Your task to perform on an android device: toggle javascript in the chrome app Image 0: 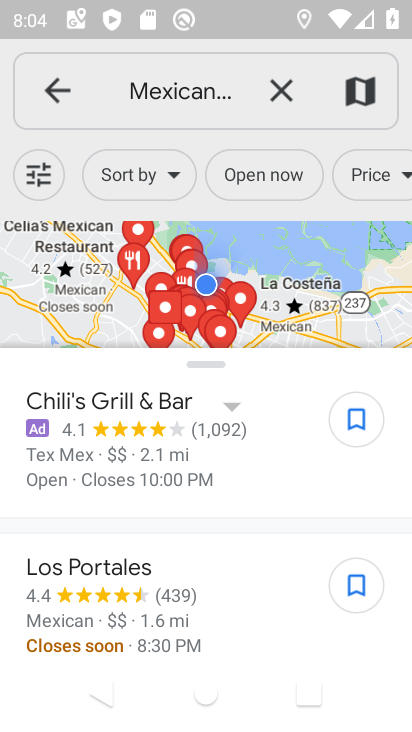
Step 0: press home button
Your task to perform on an android device: toggle javascript in the chrome app Image 1: 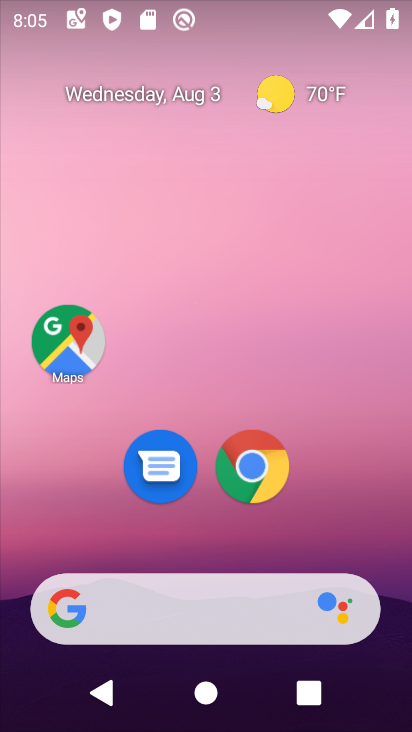
Step 1: drag from (390, 486) to (352, 72)
Your task to perform on an android device: toggle javascript in the chrome app Image 2: 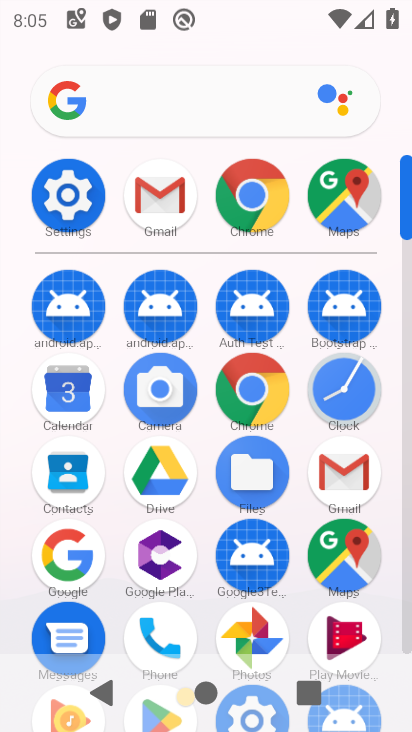
Step 2: click (253, 385)
Your task to perform on an android device: toggle javascript in the chrome app Image 3: 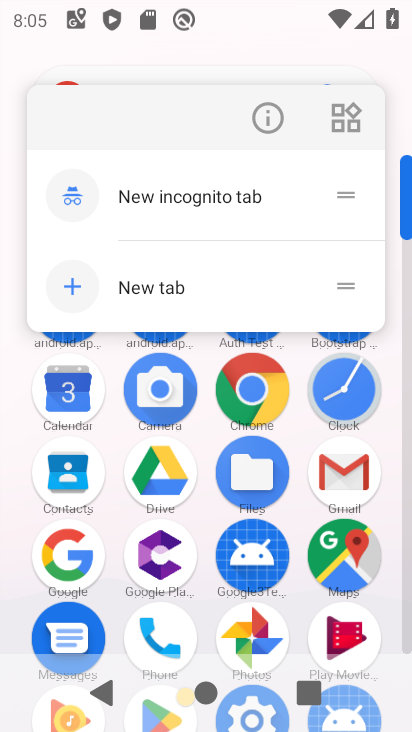
Step 3: click (261, 390)
Your task to perform on an android device: toggle javascript in the chrome app Image 4: 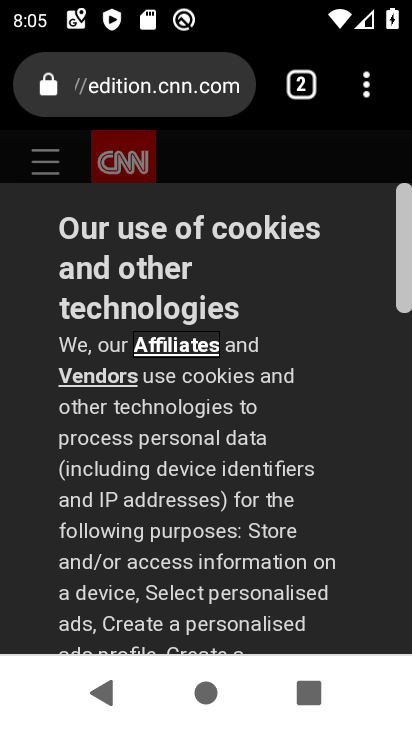
Step 4: drag from (362, 79) to (119, 528)
Your task to perform on an android device: toggle javascript in the chrome app Image 5: 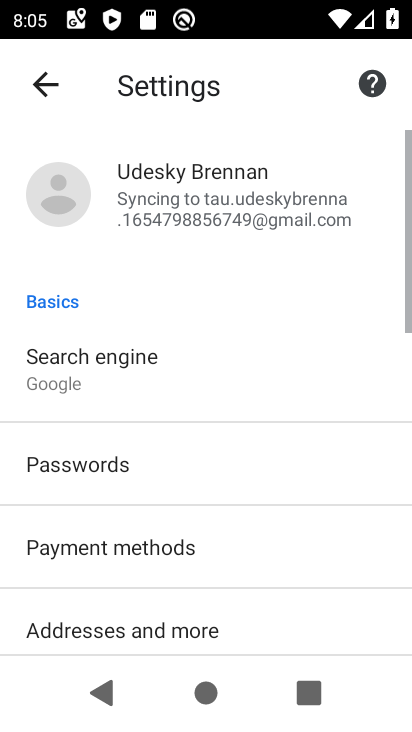
Step 5: drag from (306, 558) to (339, 247)
Your task to perform on an android device: toggle javascript in the chrome app Image 6: 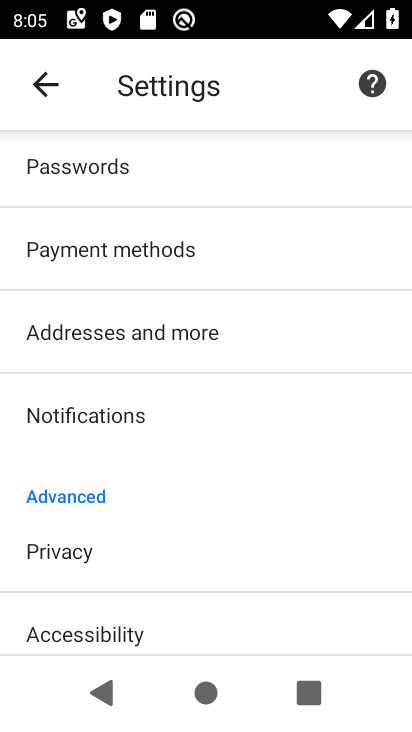
Step 6: drag from (195, 534) to (308, 176)
Your task to perform on an android device: toggle javascript in the chrome app Image 7: 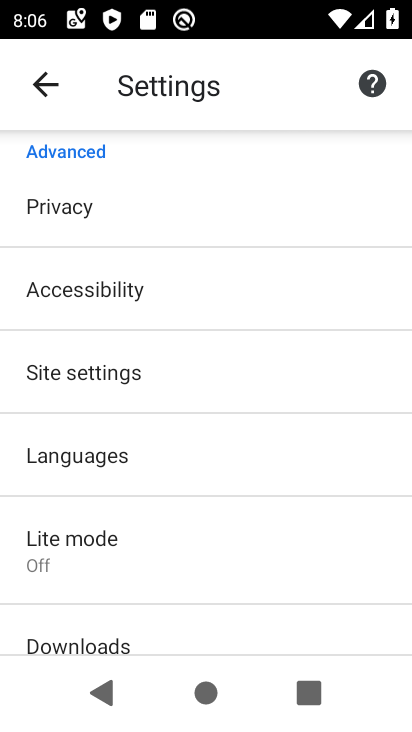
Step 7: drag from (264, 568) to (335, 412)
Your task to perform on an android device: toggle javascript in the chrome app Image 8: 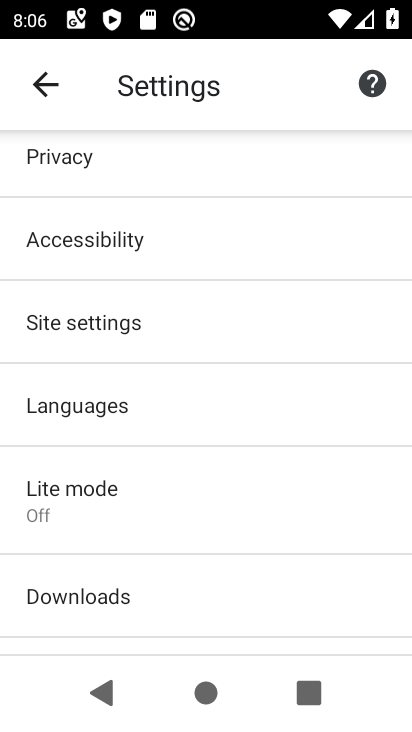
Step 8: click (117, 328)
Your task to perform on an android device: toggle javascript in the chrome app Image 9: 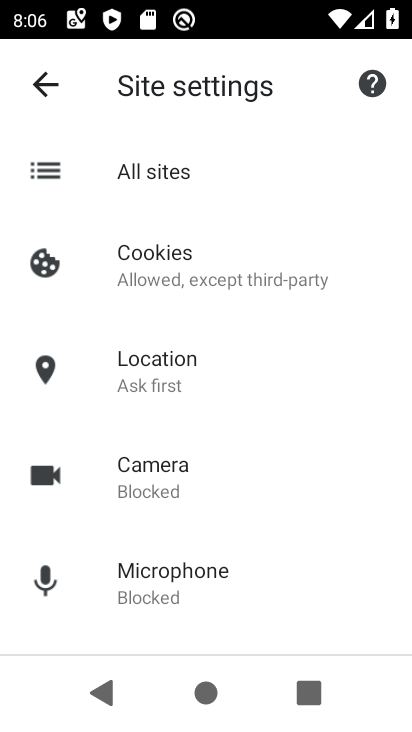
Step 9: drag from (249, 521) to (254, 198)
Your task to perform on an android device: toggle javascript in the chrome app Image 10: 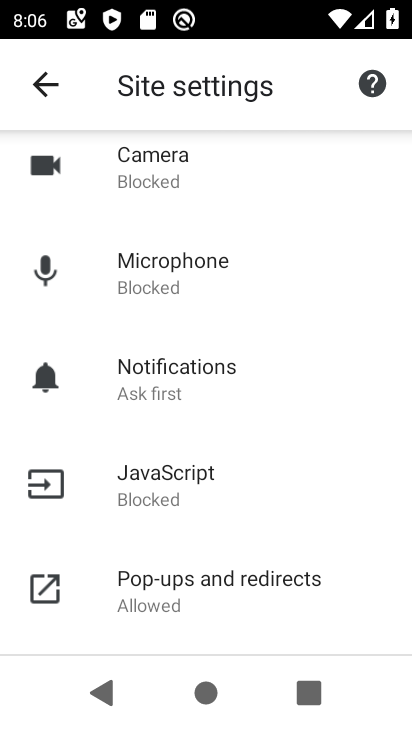
Step 10: click (163, 475)
Your task to perform on an android device: toggle javascript in the chrome app Image 11: 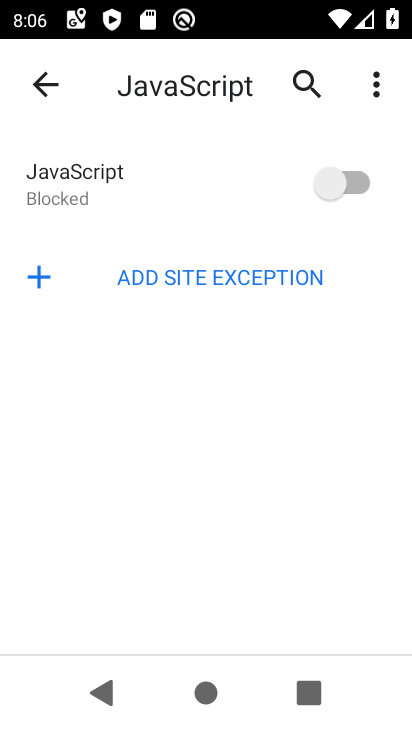
Step 11: click (318, 174)
Your task to perform on an android device: toggle javascript in the chrome app Image 12: 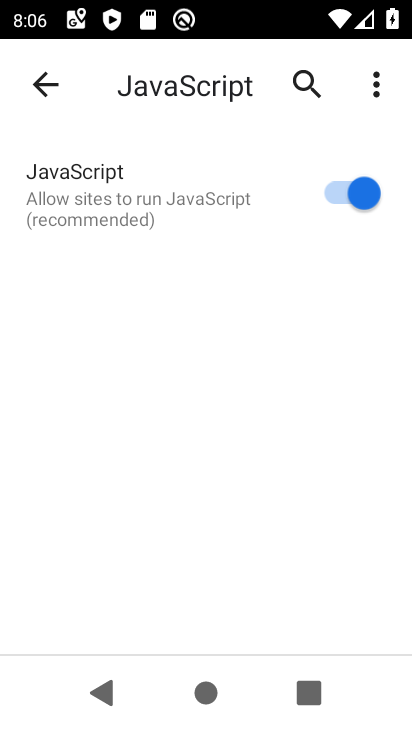
Step 12: task complete